Your task to perform on an android device: check battery use Image 0: 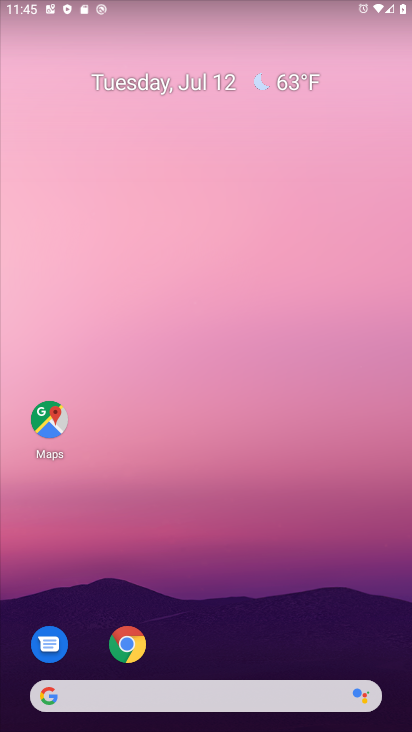
Step 0: drag from (230, 699) to (185, 99)
Your task to perform on an android device: check battery use Image 1: 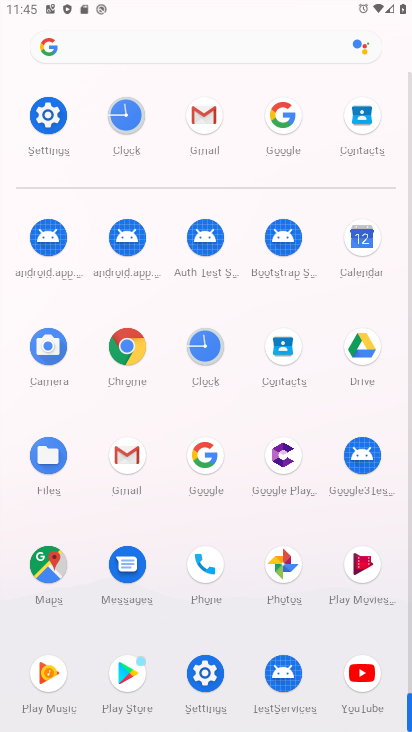
Step 1: click (206, 673)
Your task to perform on an android device: check battery use Image 2: 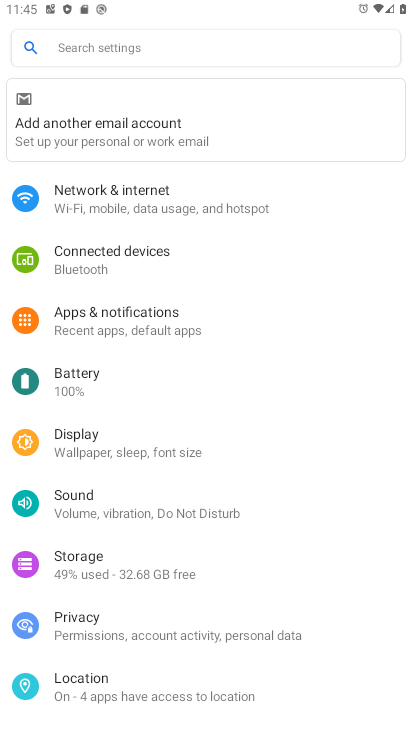
Step 2: click (86, 383)
Your task to perform on an android device: check battery use Image 3: 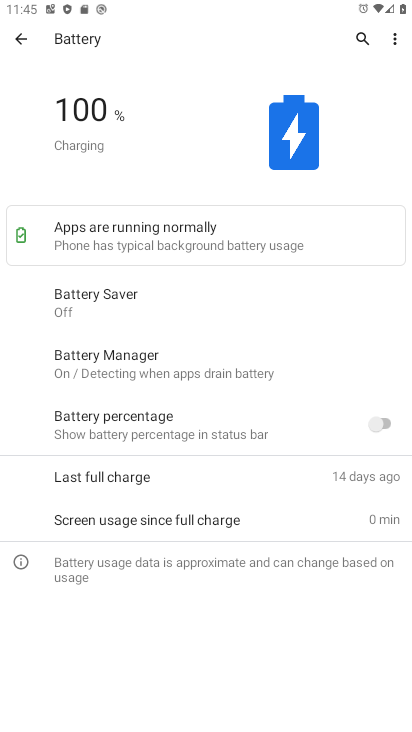
Step 3: click (397, 34)
Your task to perform on an android device: check battery use Image 4: 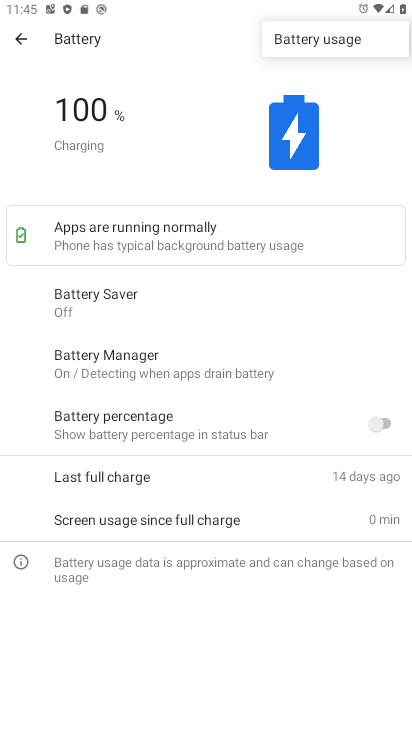
Step 4: click (340, 33)
Your task to perform on an android device: check battery use Image 5: 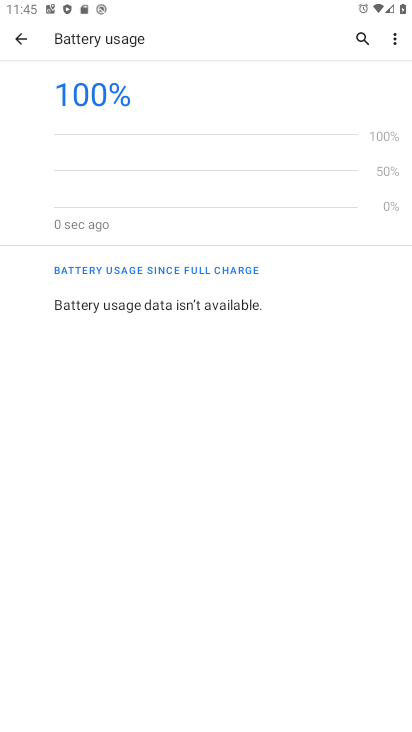
Step 5: task complete